Your task to perform on an android device: turn on location history Image 0: 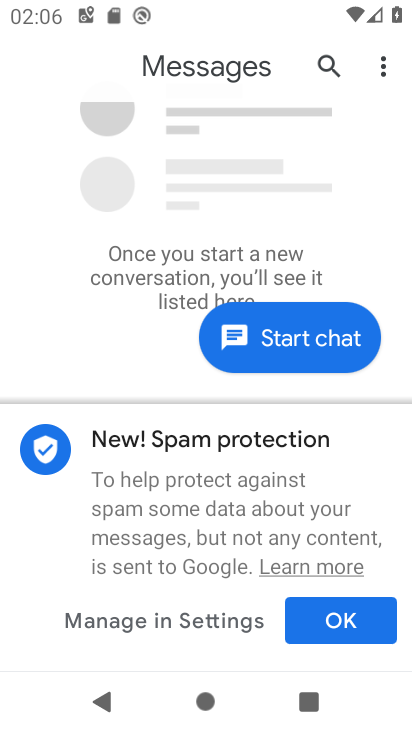
Step 0: press home button
Your task to perform on an android device: turn on location history Image 1: 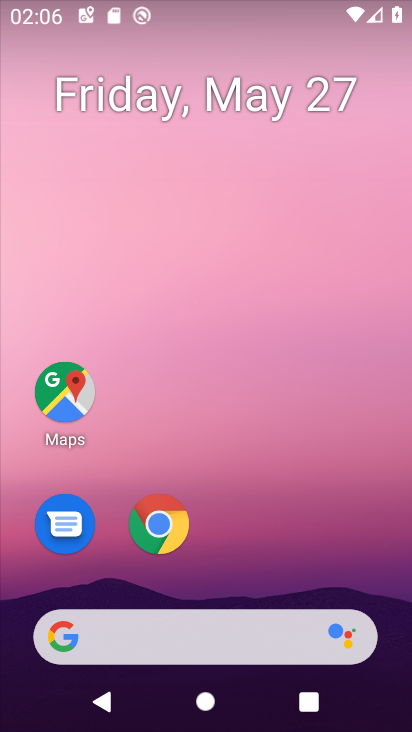
Step 1: drag from (233, 555) to (256, 11)
Your task to perform on an android device: turn on location history Image 2: 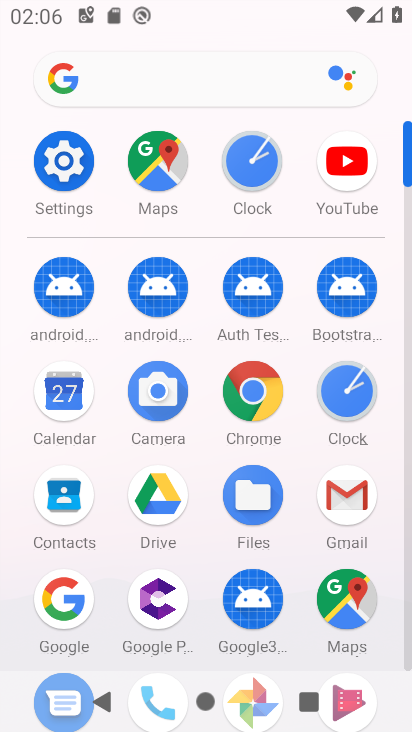
Step 2: click (66, 163)
Your task to perform on an android device: turn on location history Image 3: 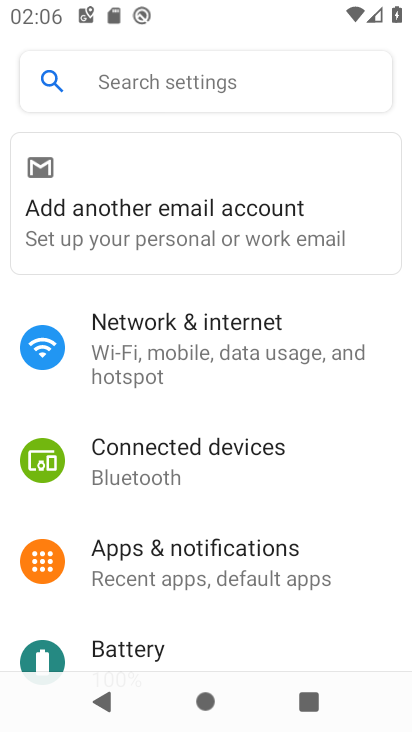
Step 3: drag from (216, 607) to (264, 26)
Your task to perform on an android device: turn on location history Image 4: 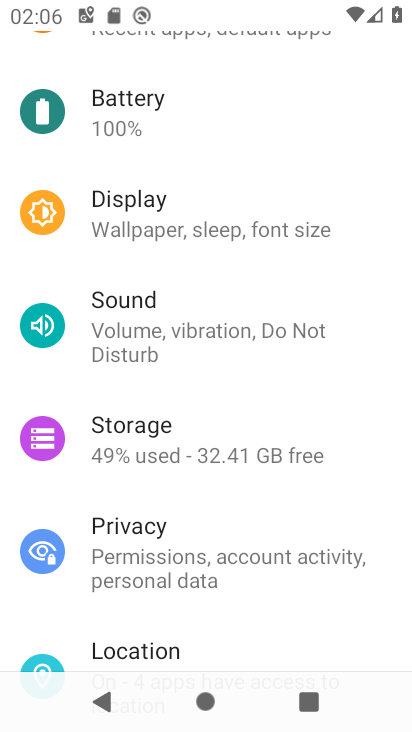
Step 4: drag from (219, 599) to (233, 240)
Your task to perform on an android device: turn on location history Image 5: 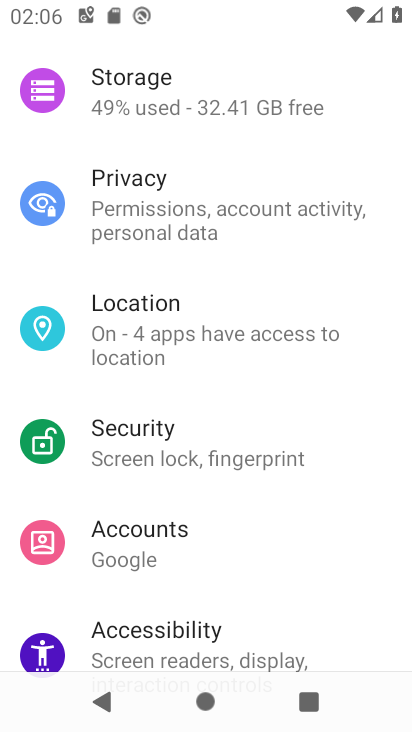
Step 5: click (230, 320)
Your task to perform on an android device: turn on location history Image 6: 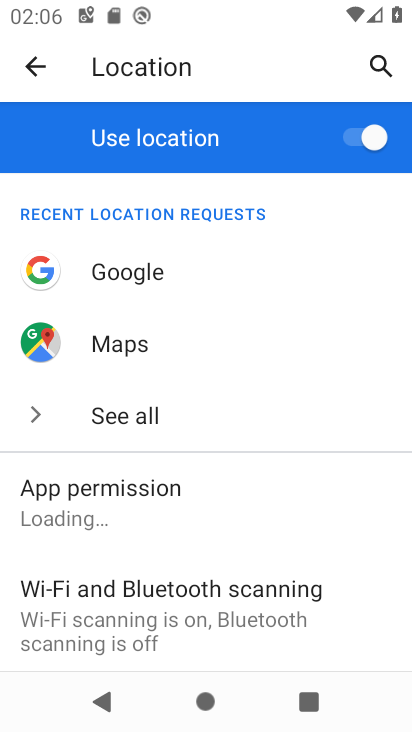
Step 6: drag from (194, 558) to (262, 106)
Your task to perform on an android device: turn on location history Image 7: 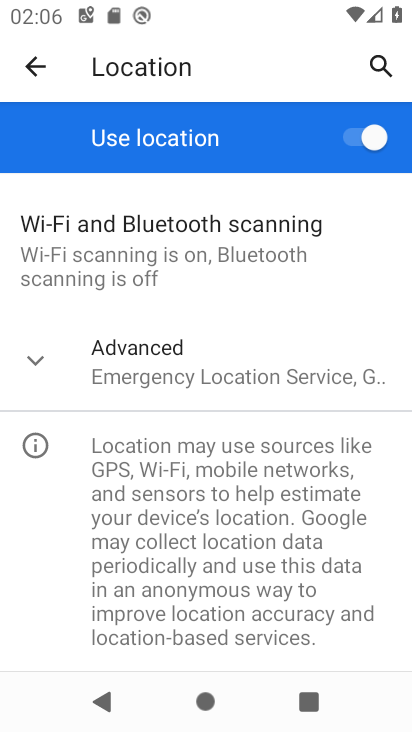
Step 7: click (29, 355)
Your task to perform on an android device: turn on location history Image 8: 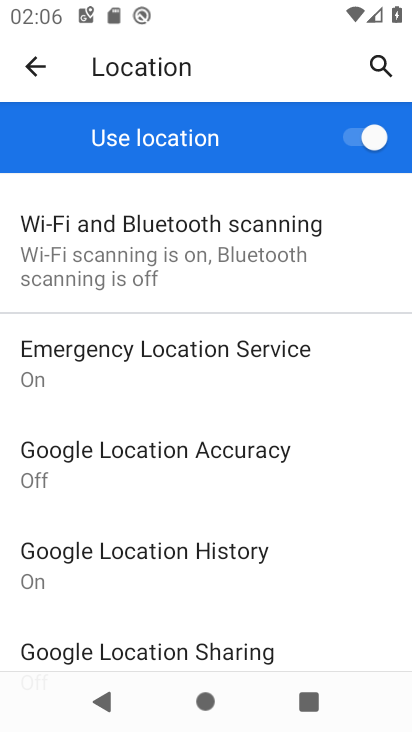
Step 8: task complete